Your task to perform on an android device: Open the Play Movies app and select the watchlist tab. Image 0: 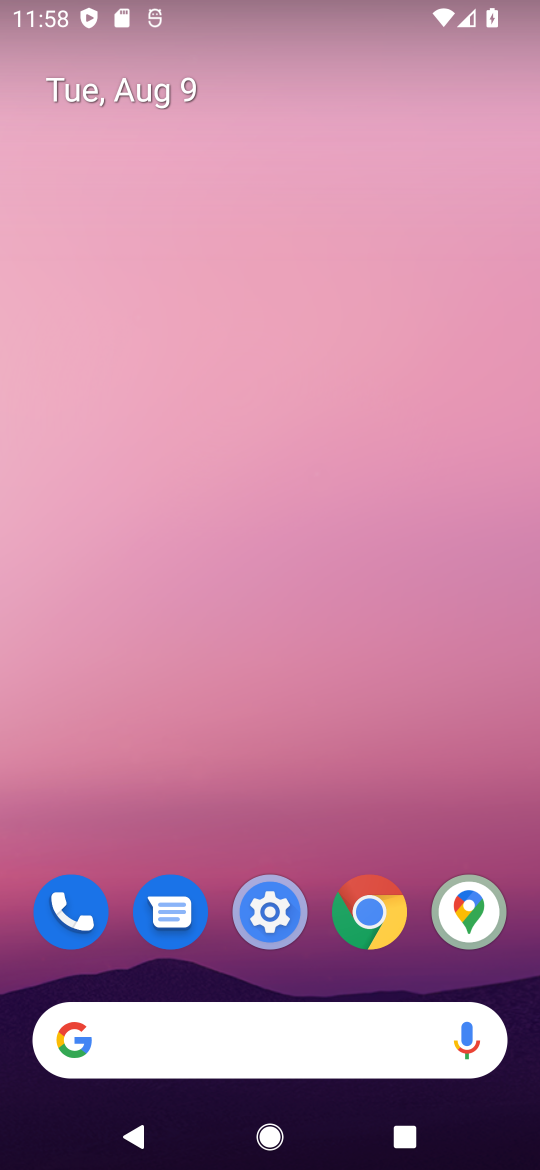
Step 0: drag from (282, 993) to (347, 292)
Your task to perform on an android device: Open the Play Movies app and select the watchlist tab. Image 1: 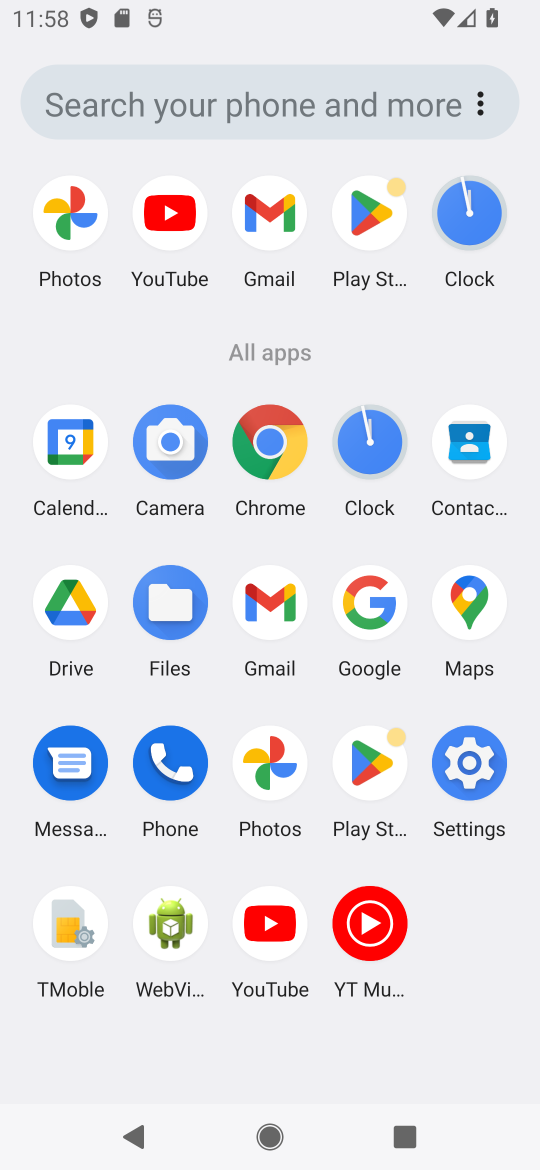
Step 1: click (176, 769)
Your task to perform on an android device: Open the Play Movies app and select the watchlist tab. Image 2: 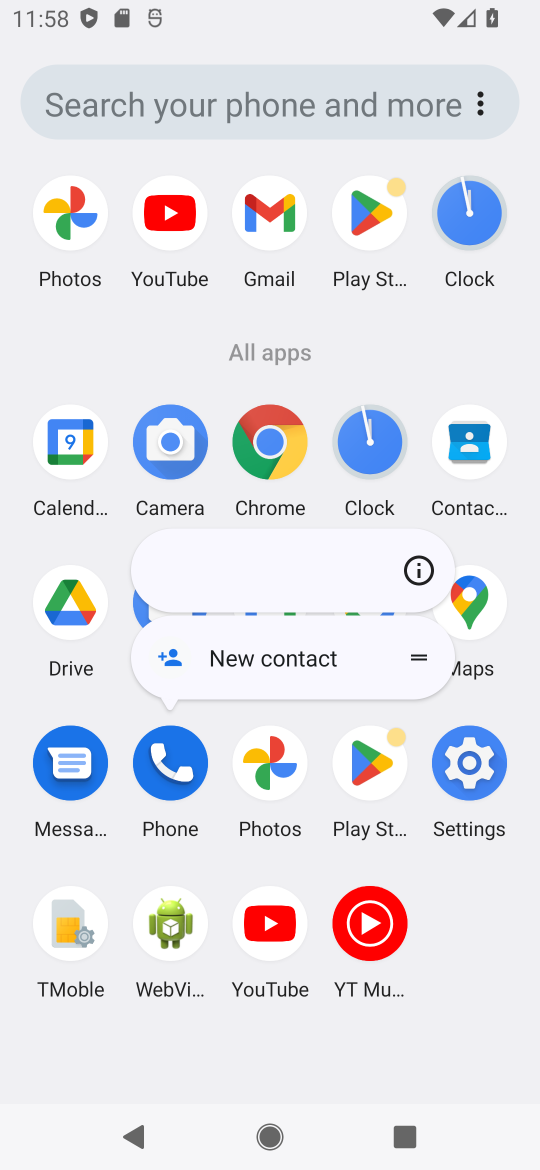
Step 2: click (174, 796)
Your task to perform on an android device: Open the Play Movies app and select the watchlist tab. Image 3: 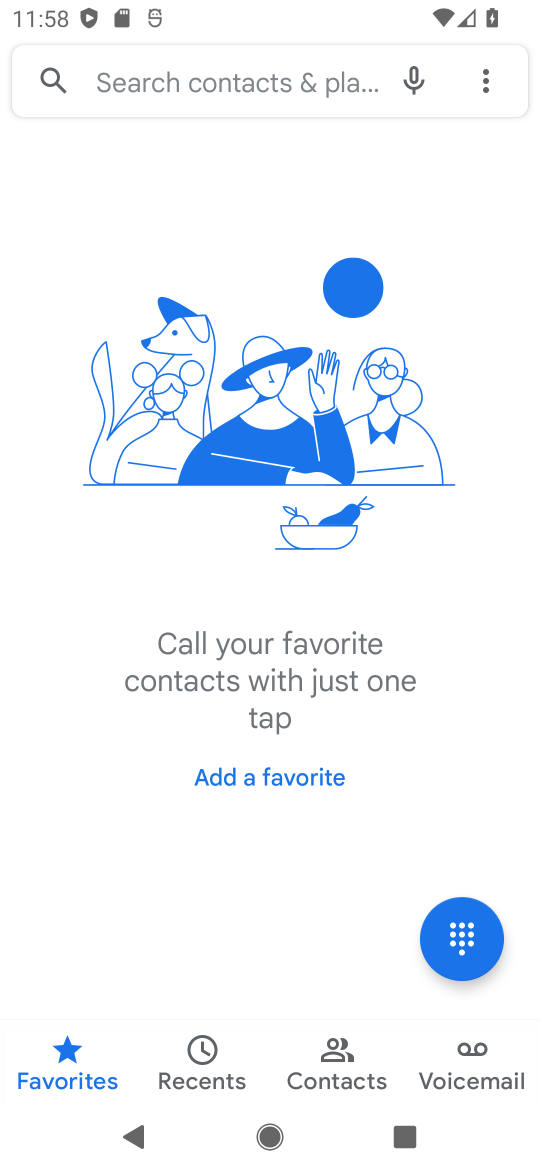
Step 3: click (462, 1072)
Your task to perform on an android device: Open the Play Movies app and select the watchlist tab. Image 4: 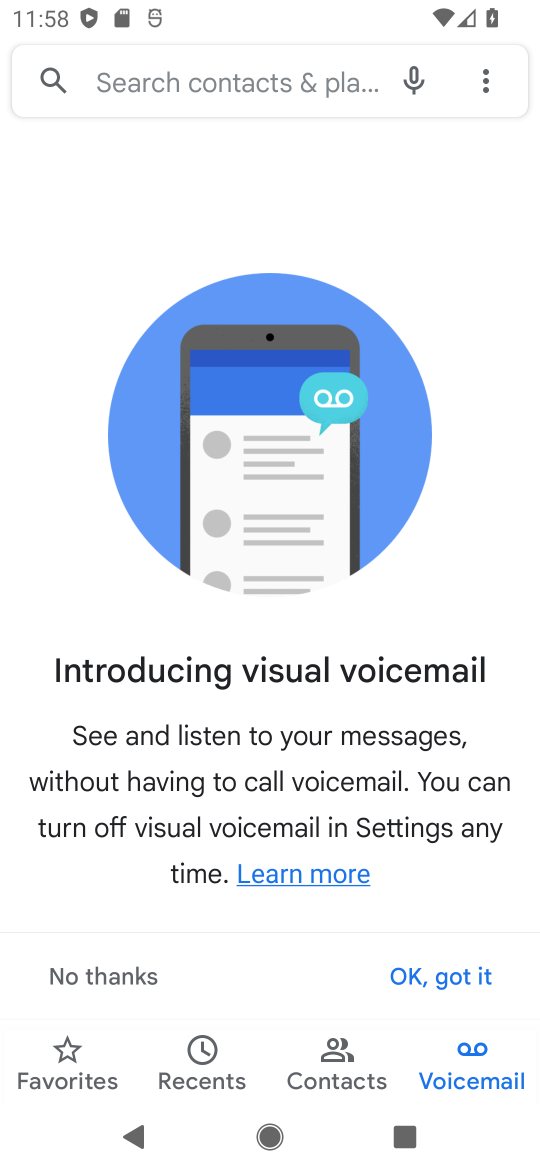
Step 4: task complete